Your task to perform on an android device: Search for "razer blade" on costco.com, select the first entry, add it to the cart, then select checkout. Image 0: 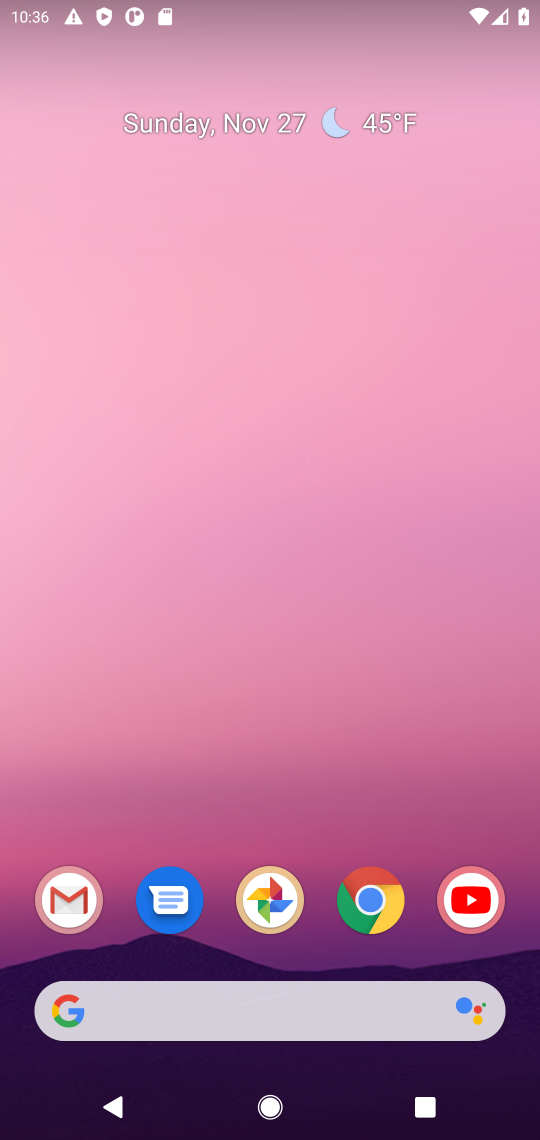
Step 0: click (380, 902)
Your task to perform on an android device: Search for "razer blade" on costco.com, select the first entry, add it to the cart, then select checkout. Image 1: 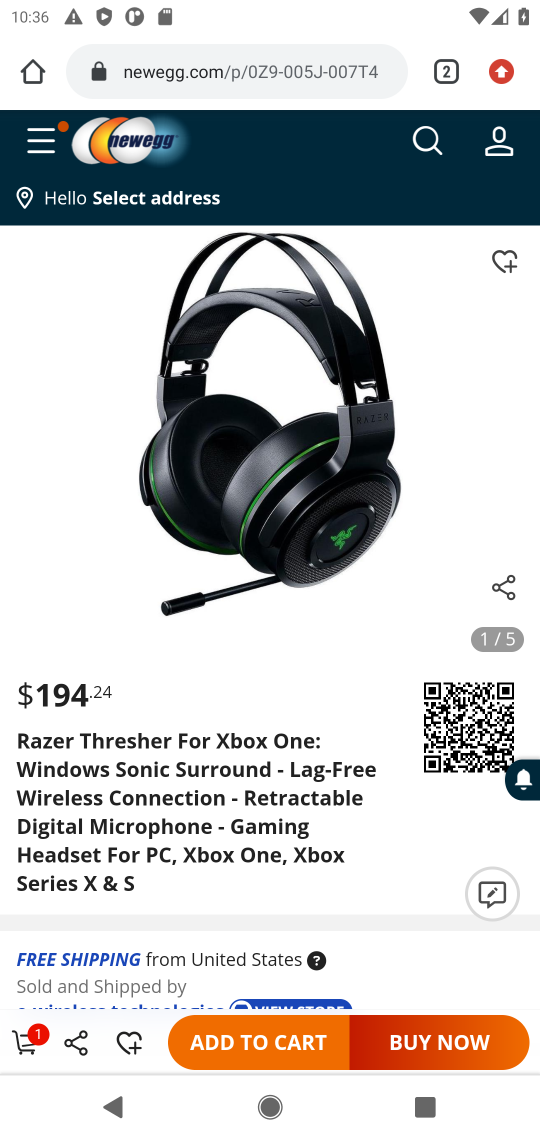
Step 1: click (278, 68)
Your task to perform on an android device: Search for "razer blade" on costco.com, select the first entry, add it to the cart, then select checkout. Image 2: 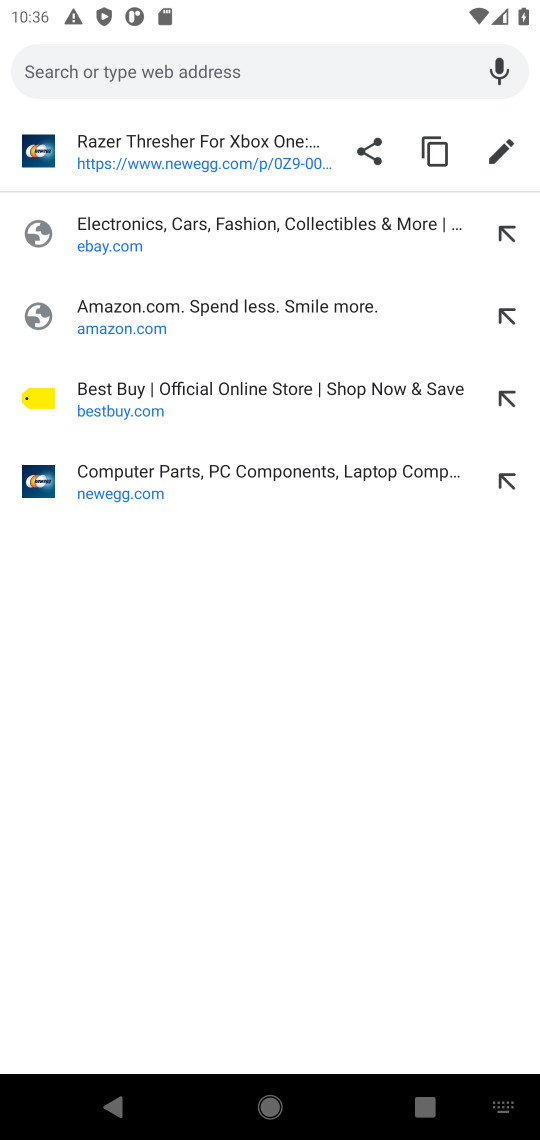
Step 2: type "costco.com"
Your task to perform on an android device: Search for "razer blade" on costco.com, select the first entry, add it to the cart, then select checkout. Image 3: 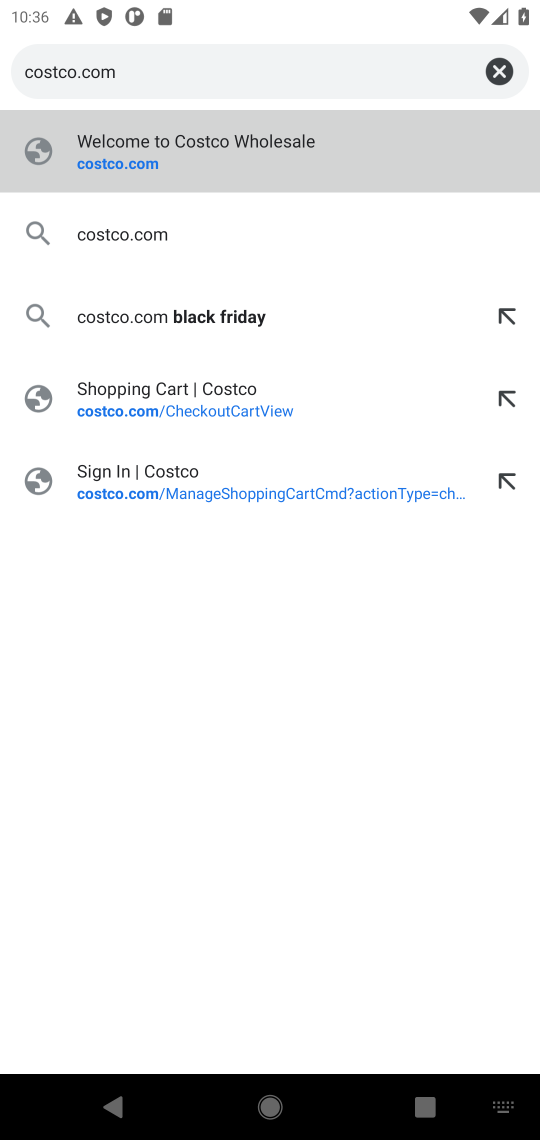
Step 3: click (119, 164)
Your task to perform on an android device: Search for "razer blade" on costco.com, select the first entry, add it to the cart, then select checkout. Image 4: 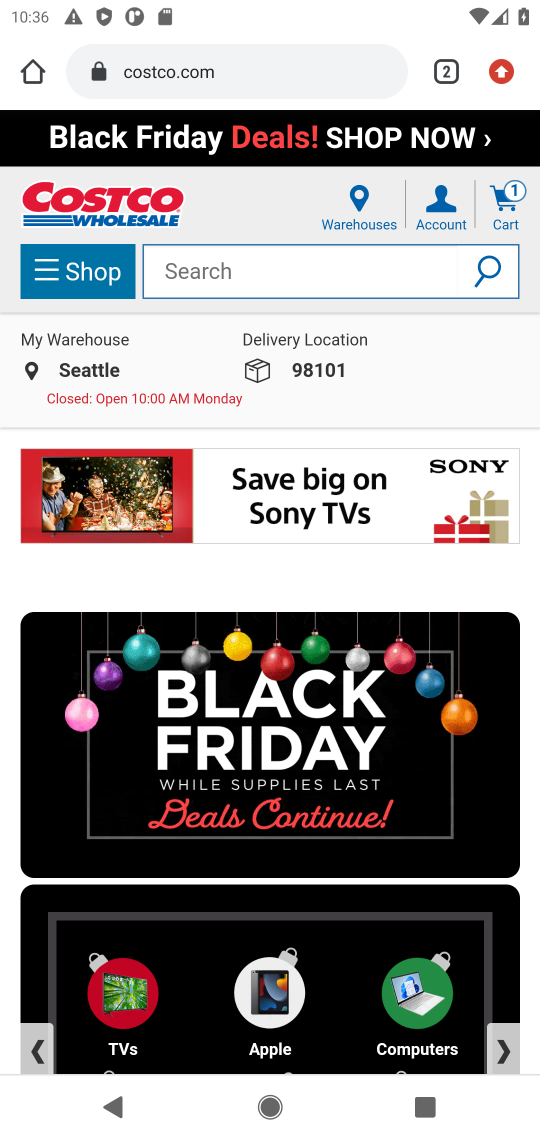
Step 4: click (232, 272)
Your task to perform on an android device: Search for "razer blade" on costco.com, select the first entry, add it to the cart, then select checkout. Image 5: 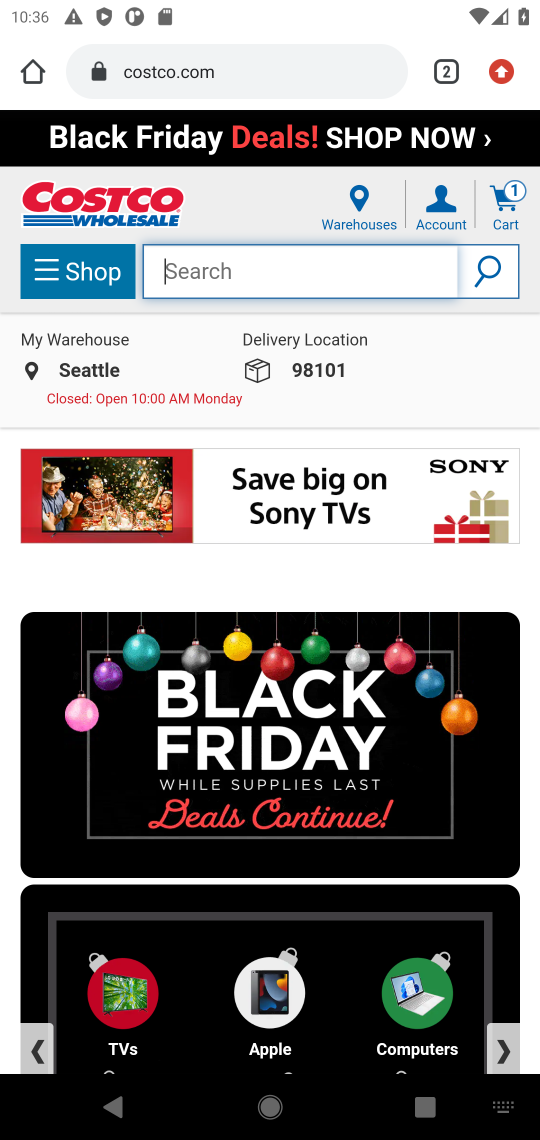
Step 5: type "razer blade"
Your task to perform on an android device: Search for "razer blade" on costco.com, select the first entry, add it to the cart, then select checkout. Image 6: 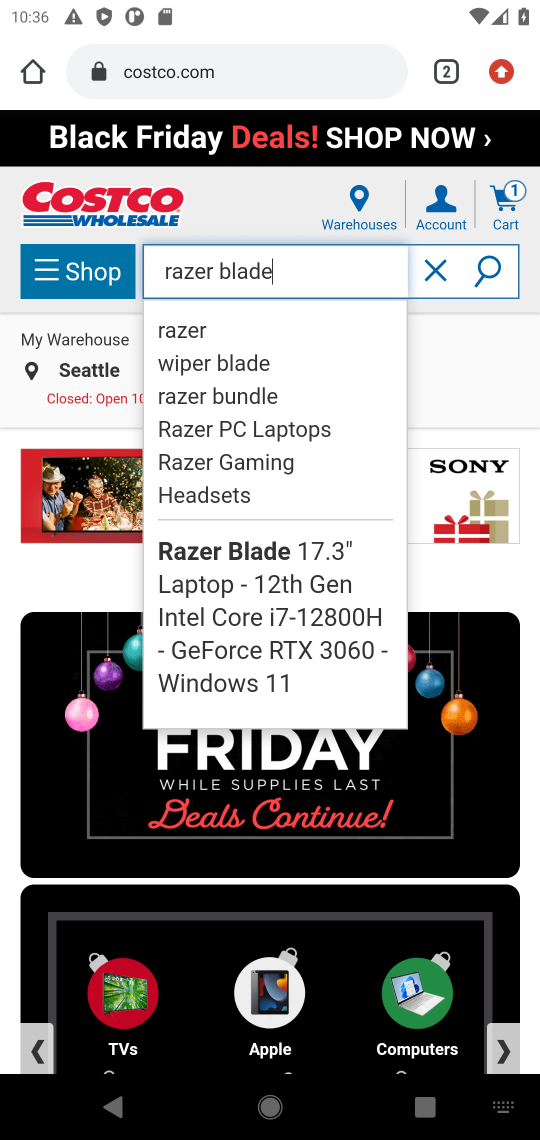
Step 6: click (499, 277)
Your task to perform on an android device: Search for "razer blade" on costco.com, select the first entry, add it to the cart, then select checkout. Image 7: 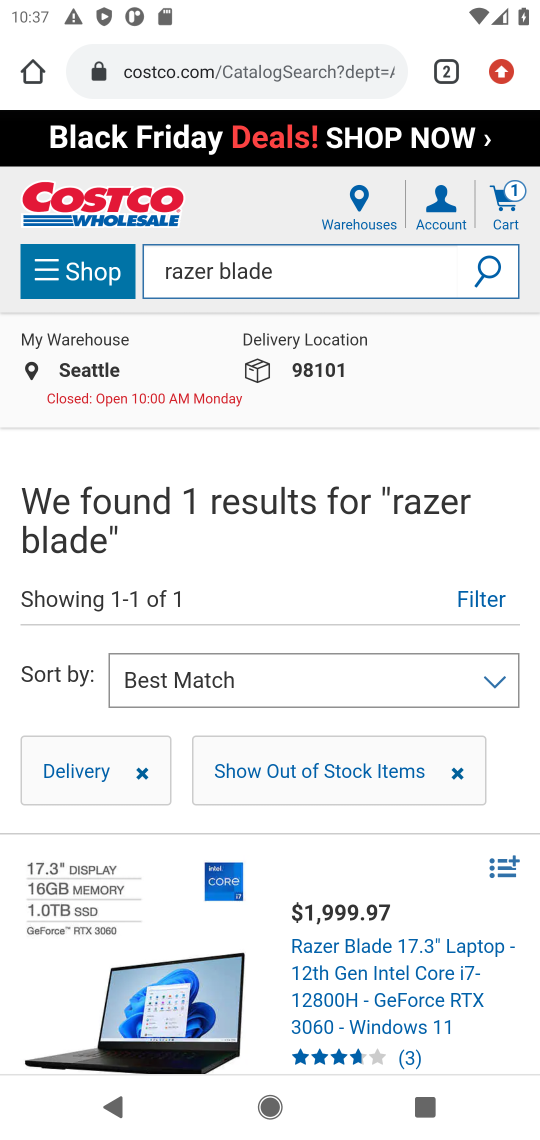
Step 7: drag from (307, 920) to (306, 515)
Your task to perform on an android device: Search for "razer blade" on costco.com, select the first entry, add it to the cart, then select checkout. Image 8: 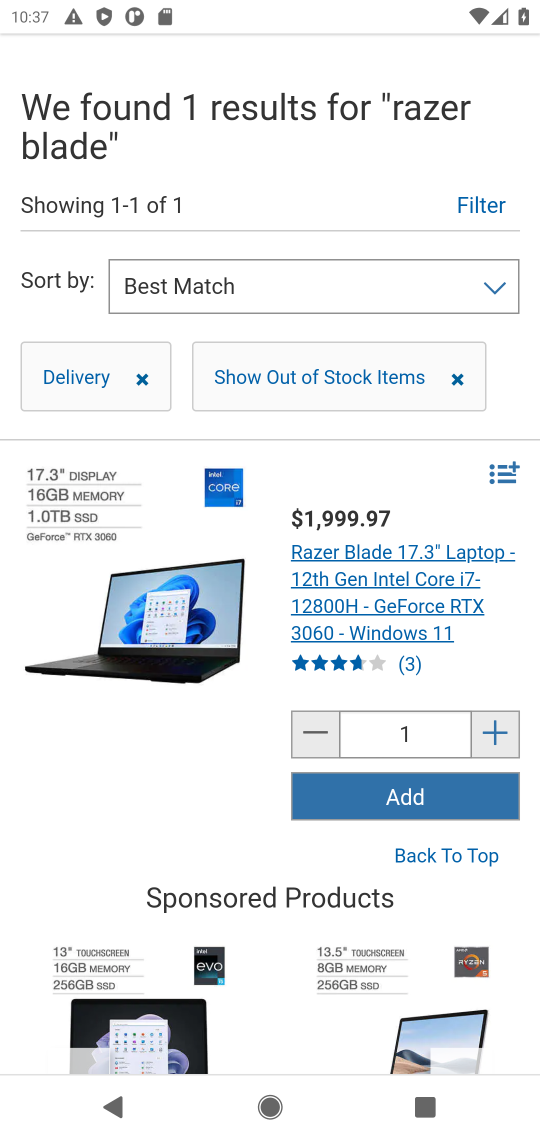
Step 8: click (394, 802)
Your task to perform on an android device: Search for "razer blade" on costco.com, select the first entry, add it to the cart, then select checkout. Image 9: 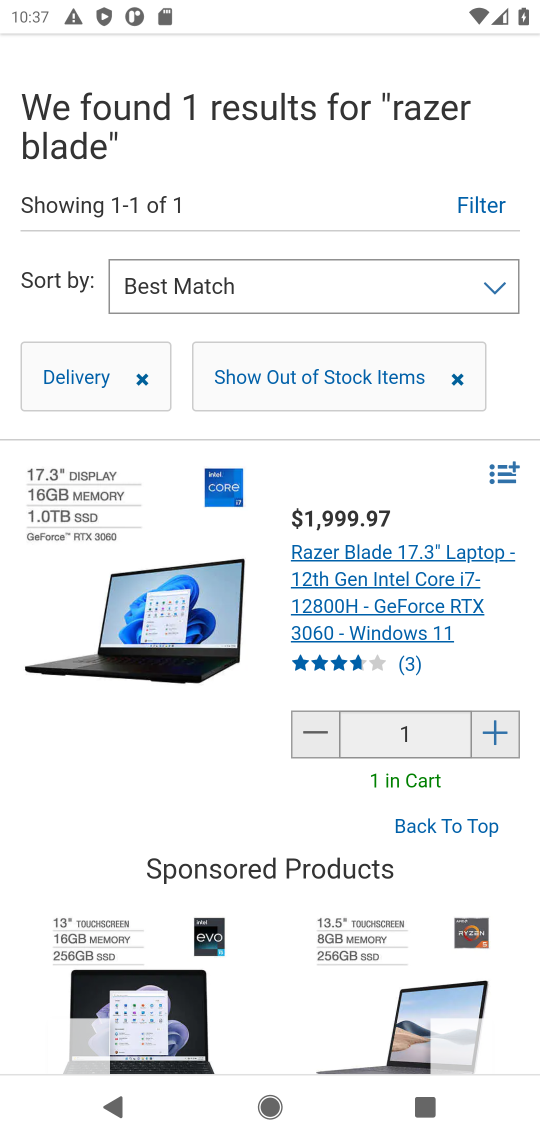
Step 9: drag from (364, 231) to (292, 669)
Your task to perform on an android device: Search for "razer blade" on costco.com, select the first entry, add it to the cart, then select checkout. Image 10: 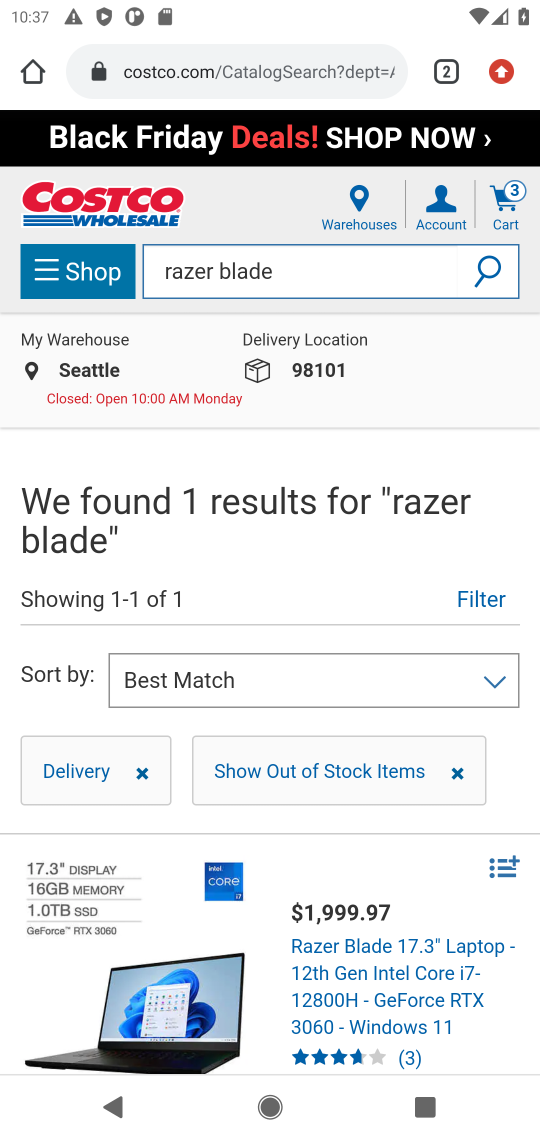
Step 10: click (503, 204)
Your task to perform on an android device: Search for "razer blade" on costco.com, select the first entry, add it to the cart, then select checkout. Image 11: 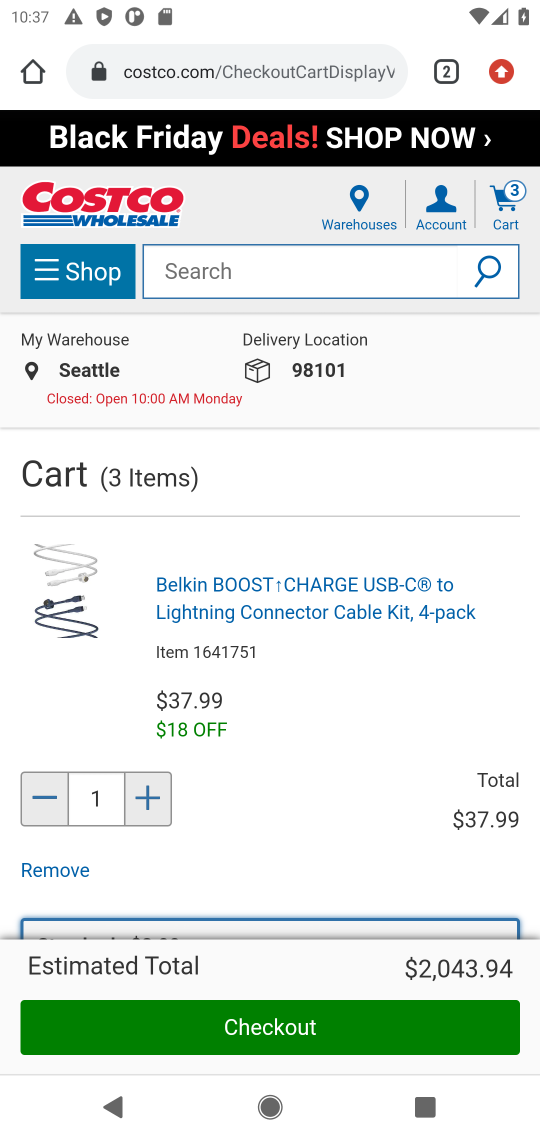
Step 11: click (256, 1032)
Your task to perform on an android device: Search for "razer blade" on costco.com, select the first entry, add it to the cart, then select checkout. Image 12: 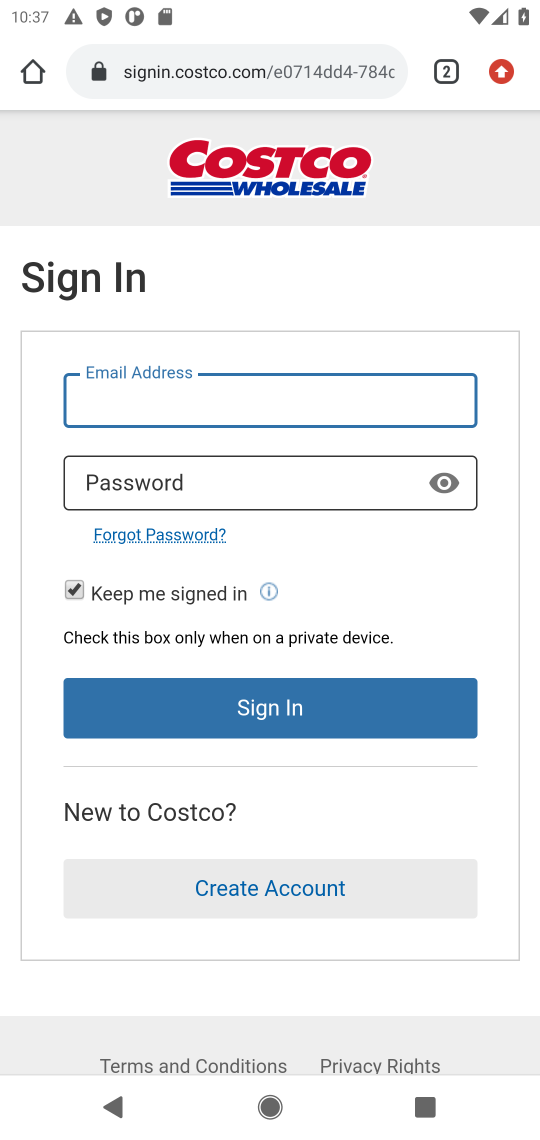
Step 12: task complete